Your task to perform on an android device: Open the map Image 0: 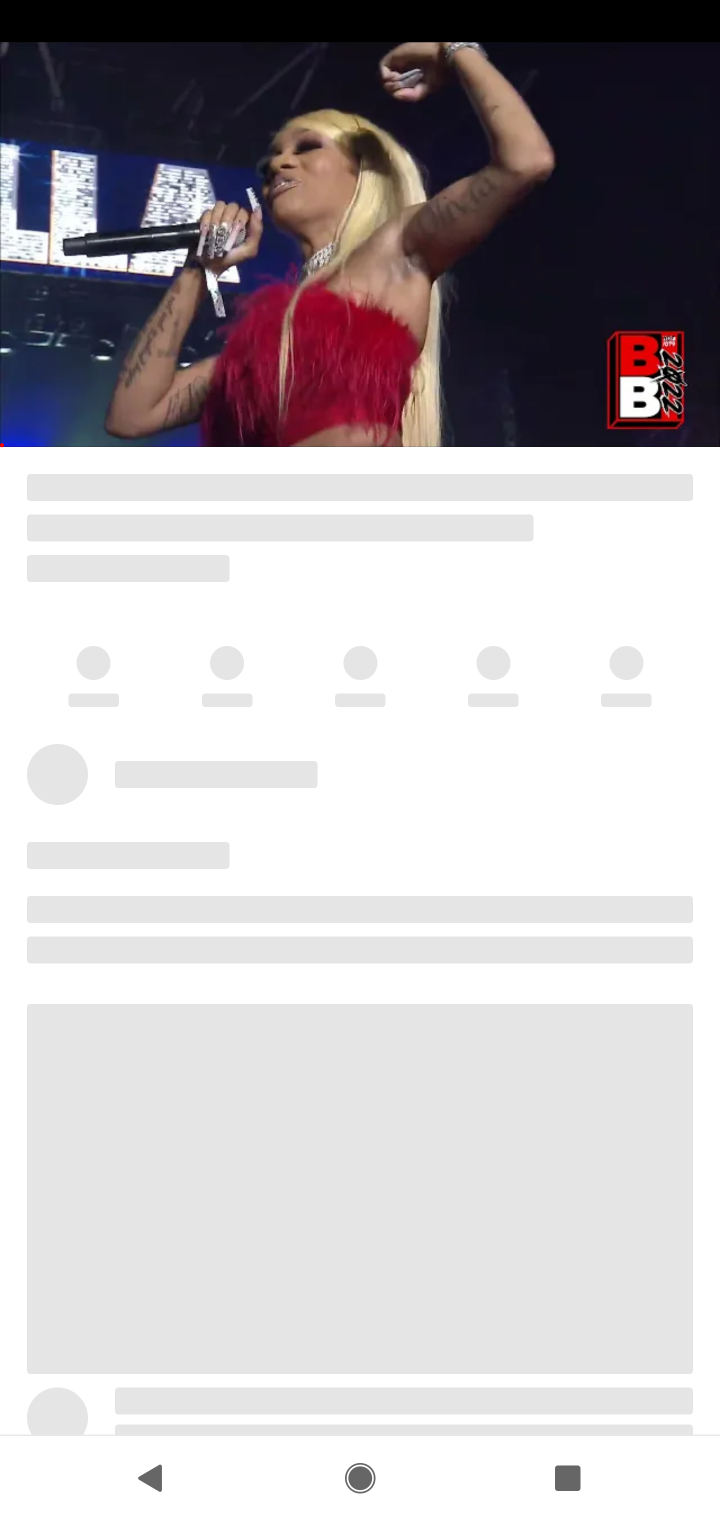
Step 0: press home button
Your task to perform on an android device: Open the map Image 1: 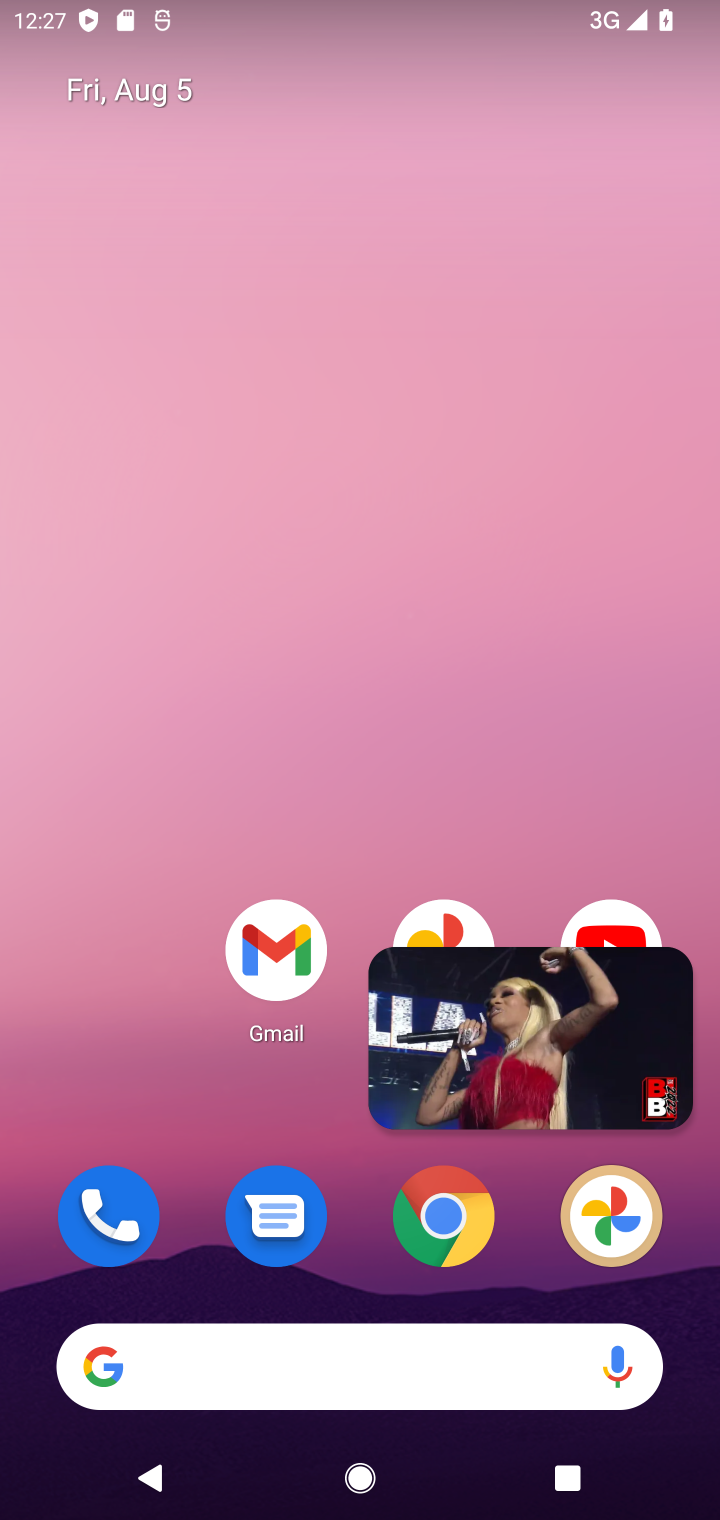
Step 1: click (652, 987)
Your task to perform on an android device: Open the map Image 2: 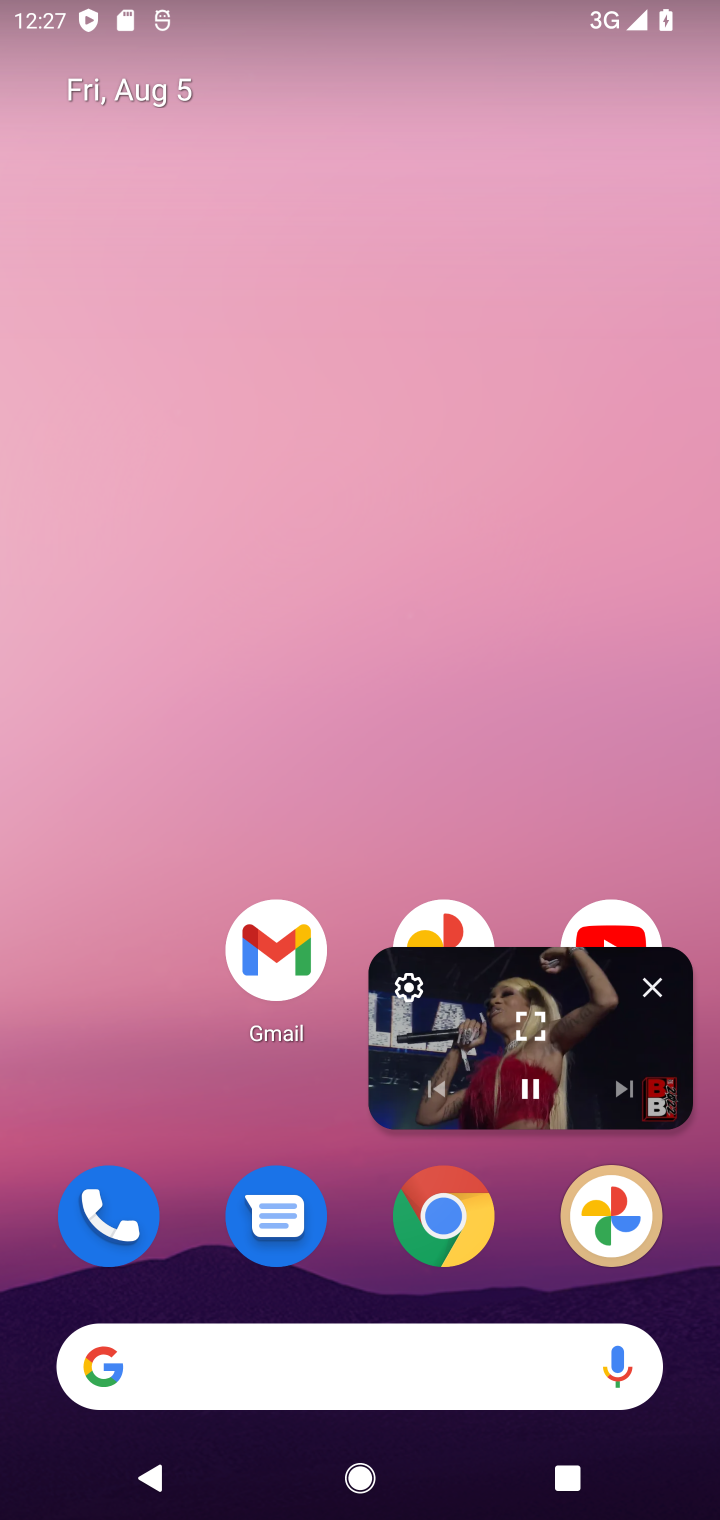
Step 2: click (653, 984)
Your task to perform on an android device: Open the map Image 3: 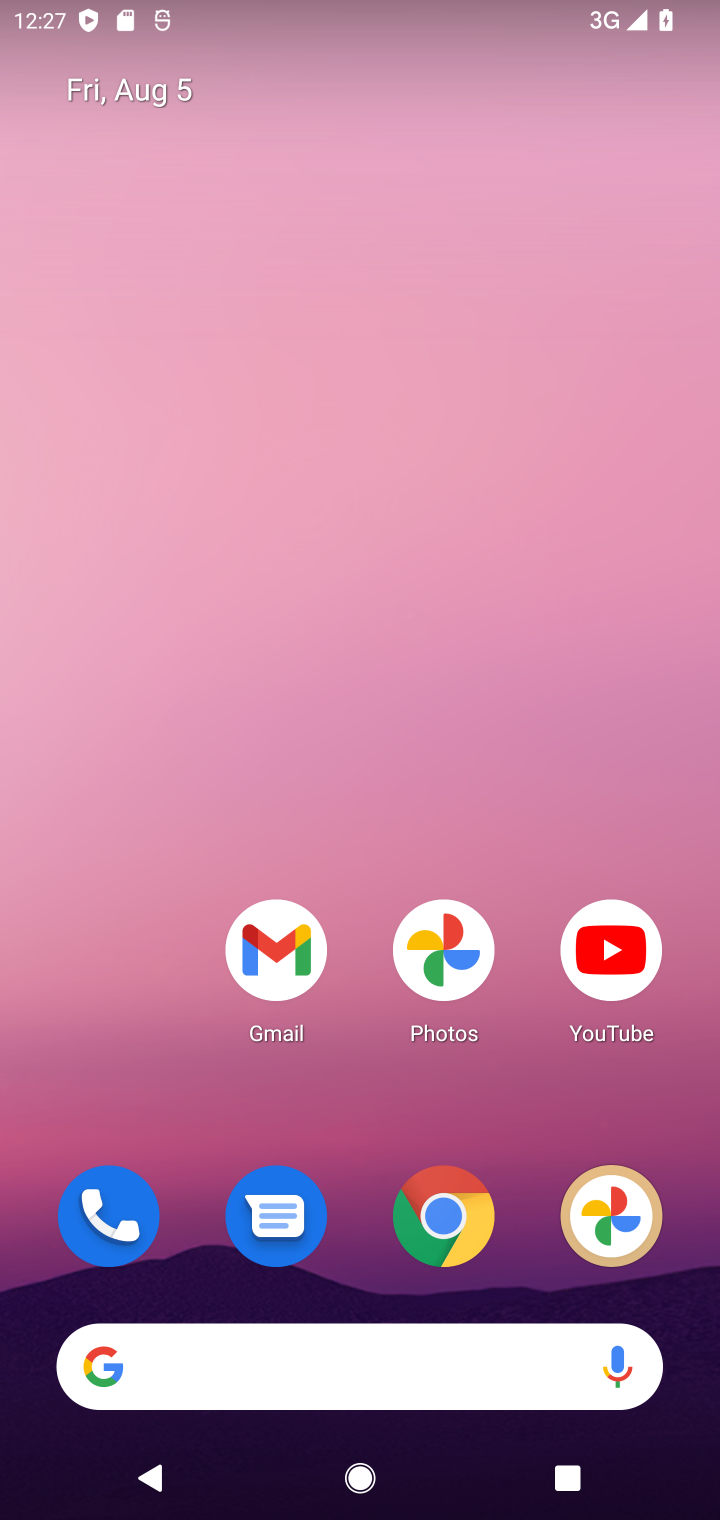
Step 3: drag from (447, 1344) to (447, 214)
Your task to perform on an android device: Open the map Image 4: 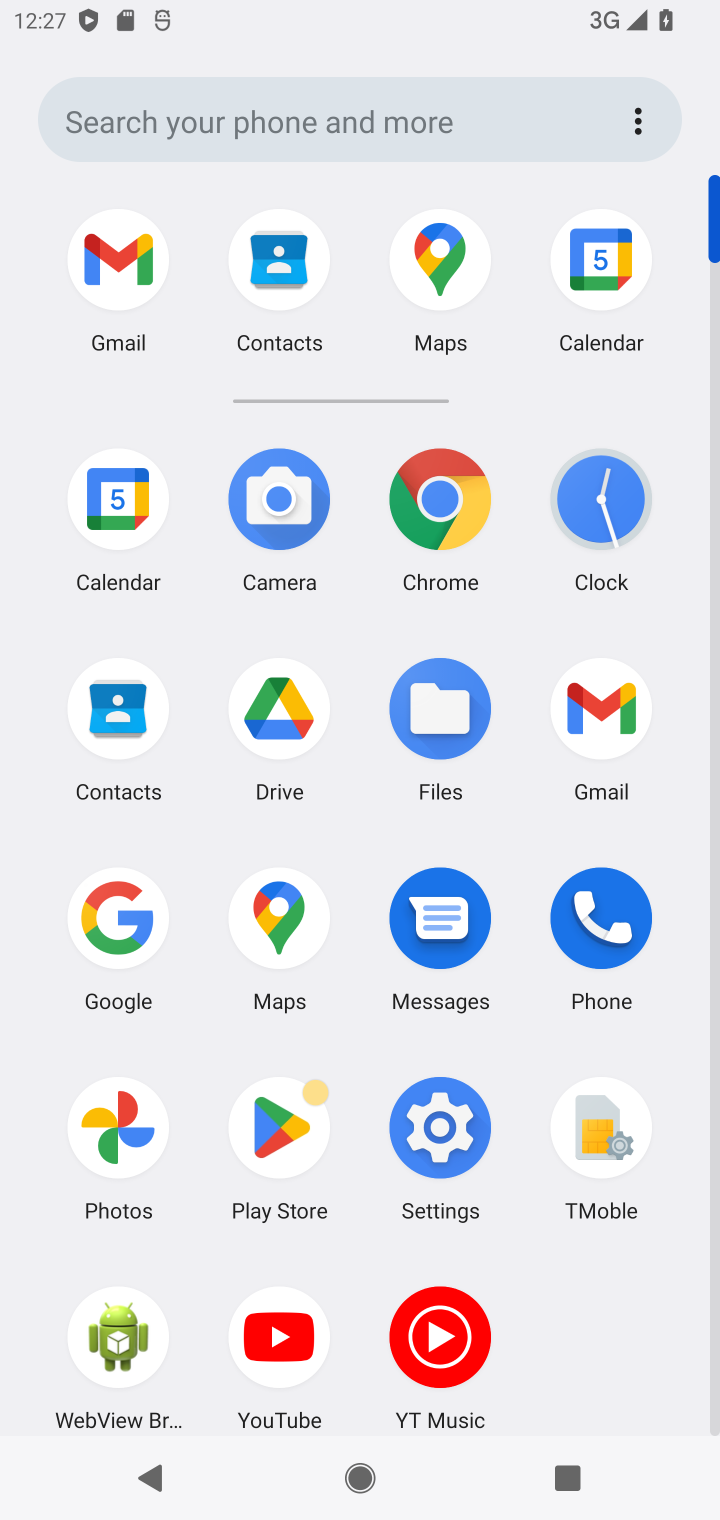
Step 4: click (290, 925)
Your task to perform on an android device: Open the map Image 5: 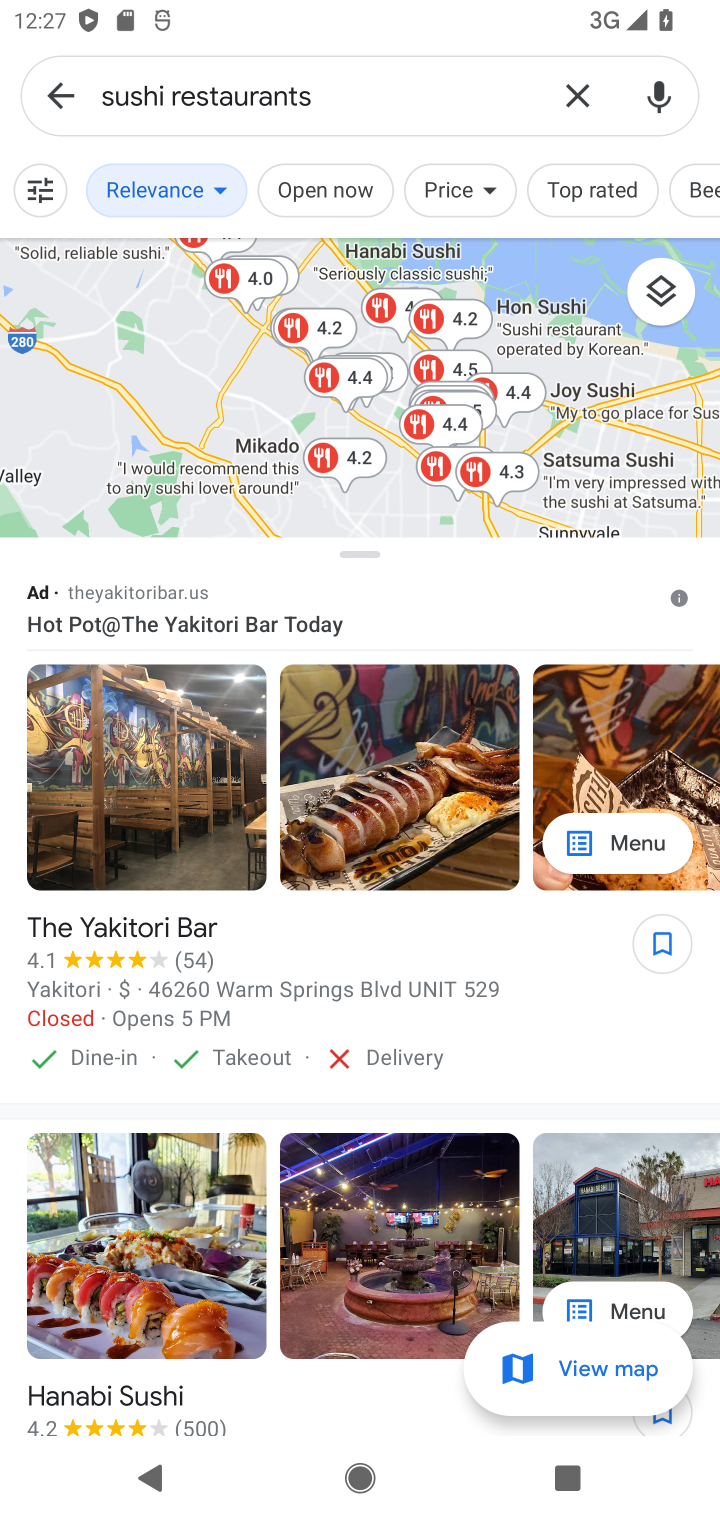
Step 5: task complete